Your task to perform on an android device: Go to Android settings Image 0: 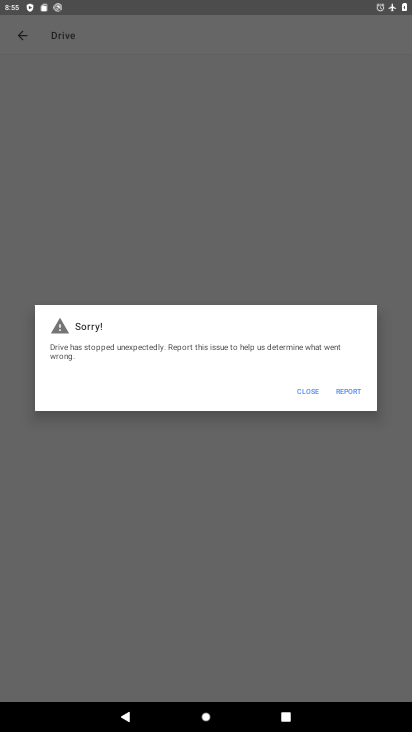
Step 0: press home button
Your task to perform on an android device: Go to Android settings Image 1: 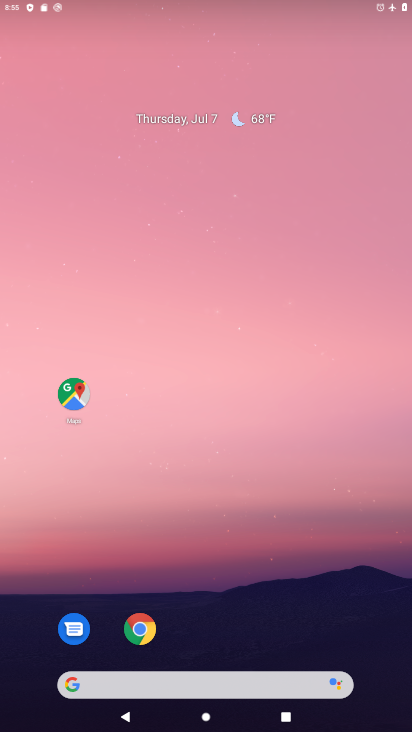
Step 1: drag from (237, 631) to (228, 100)
Your task to perform on an android device: Go to Android settings Image 2: 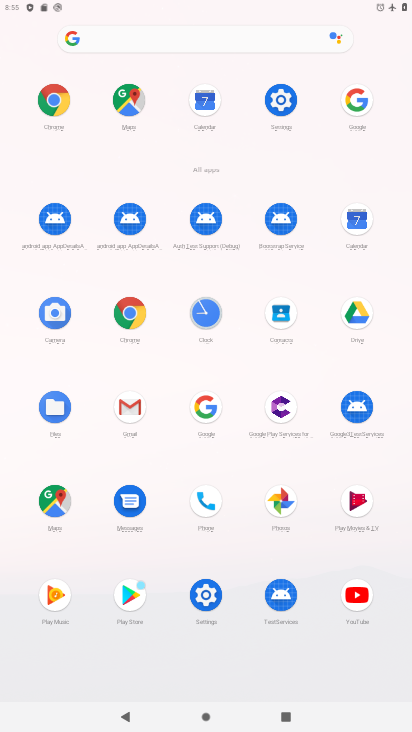
Step 2: click (282, 101)
Your task to perform on an android device: Go to Android settings Image 3: 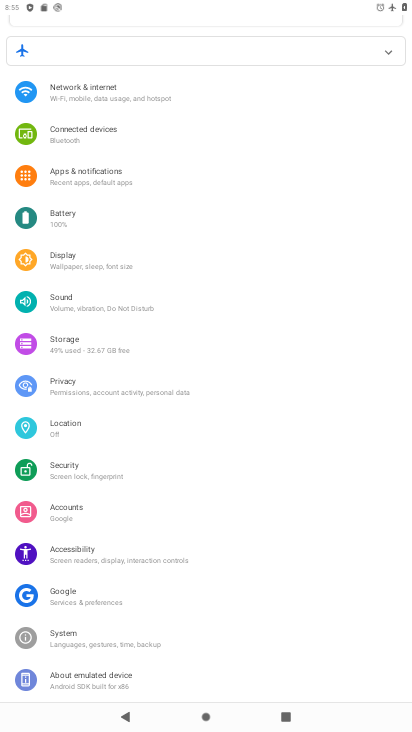
Step 3: task complete